Your task to perform on an android device: toggle notification dots Image 0: 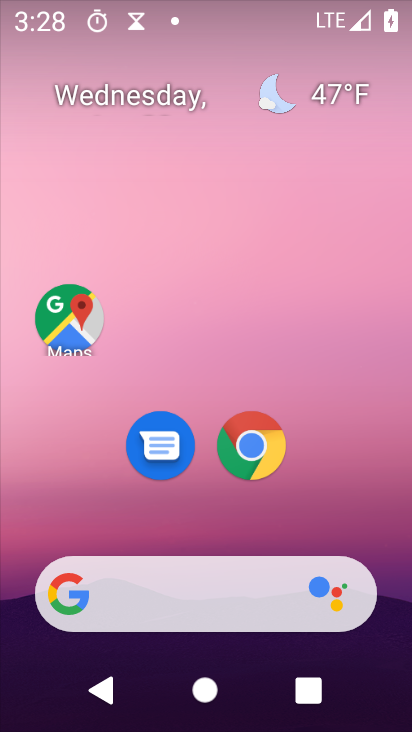
Step 0: drag from (380, 543) to (384, 13)
Your task to perform on an android device: toggle notification dots Image 1: 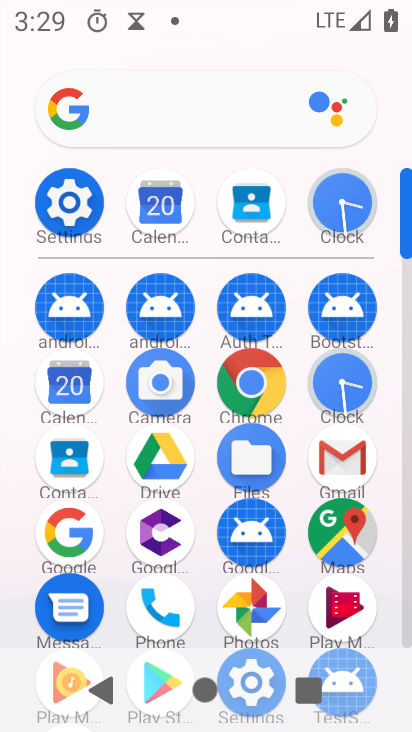
Step 1: click (68, 212)
Your task to perform on an android device: toggle notification dots Image 2: 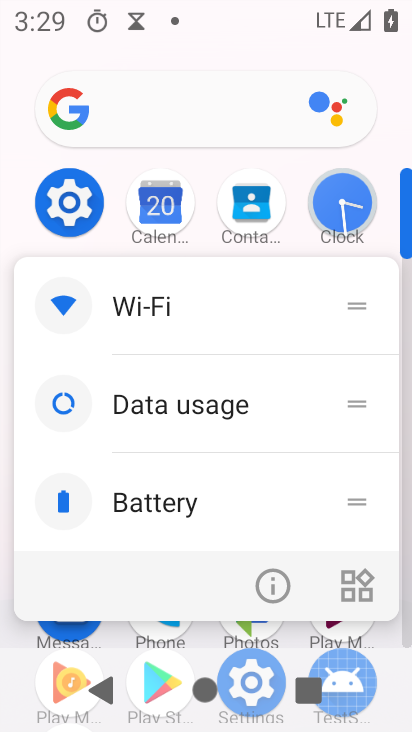
Step 2: click (70, 201)
Your task to perform on an android device: toggle notification dots Image 3: 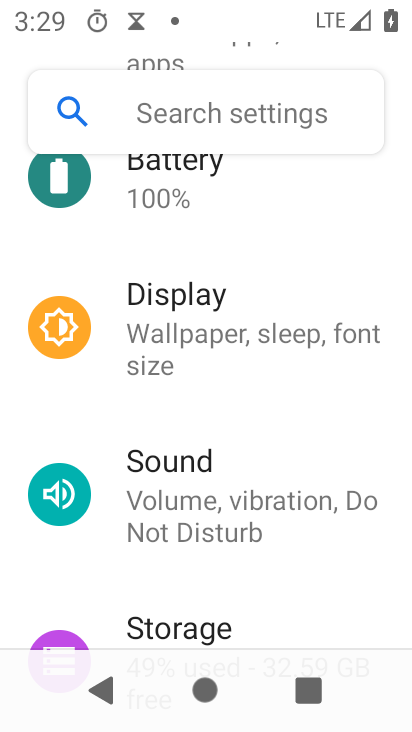
Step 3: drag from (294, 244) to (276, 522)
Your task to perform on an android device: toggle notification dots Image 4: 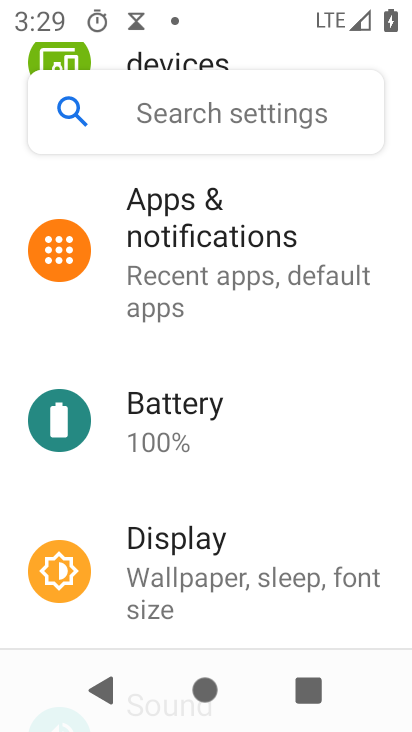
Step 4: click (243, 258)
Your task to perform on an android device: toggle notification dots Image 5: 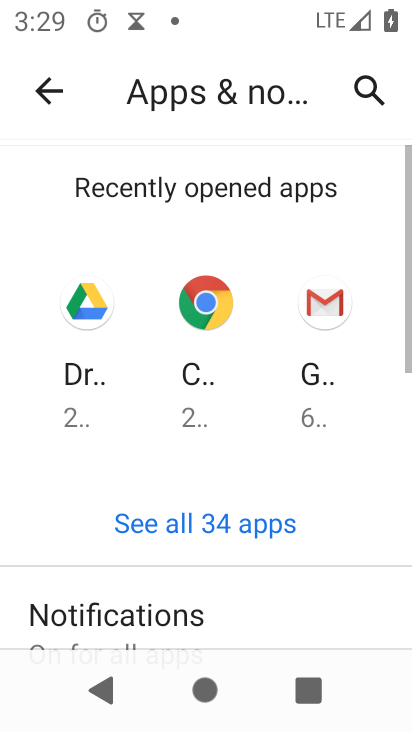
Step 5: drag from (336, 550) to (322, 165)
Your task to perform on an android device: toggle notification dots Image 6: 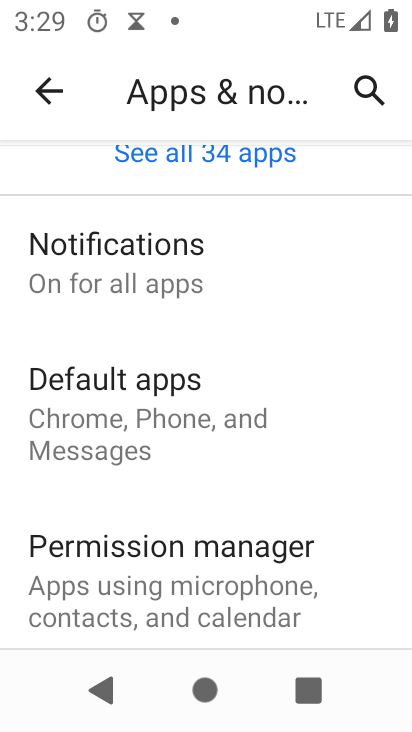
Step 6: click (136, 287)
Your task to perform on an android device: toggle notification dots Image 7: 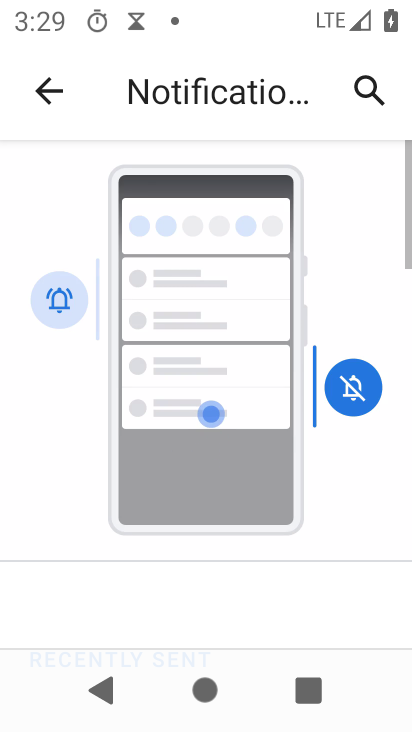
Step 7: drag from (283, 538) to (256, 99)
Your task to perform on an android device: toggle notification dots Image 8: 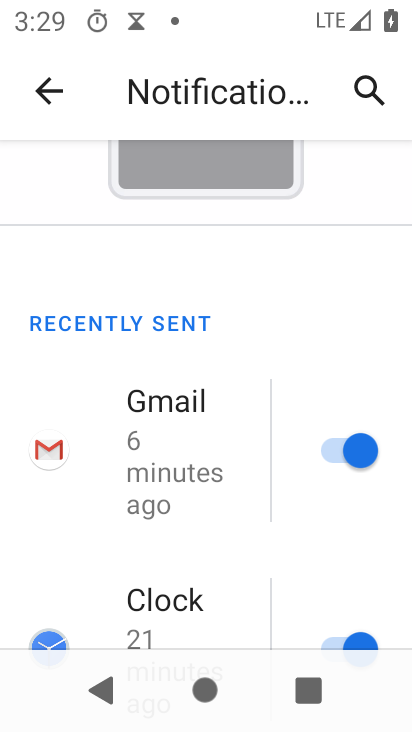
Step 8: drag from (191, 518) to (180, 145)
Your task to perform on an android device: toggle notification dots Image 9: 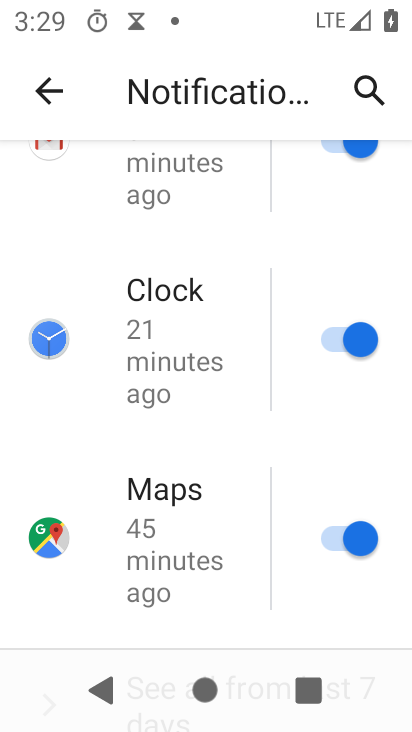
Step 9: drag from (176, 500) to (163, 138)
Your task to perform on an android device: toggle notification dots Image 10: 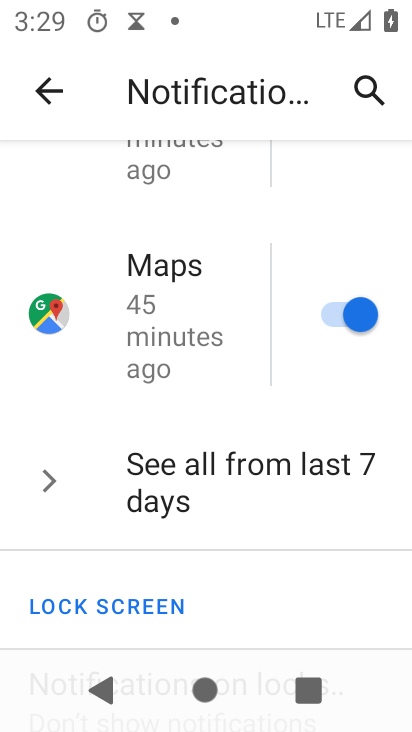
Step 10: drag from (153, 517) to (165, 195)
Your task to perform on an android device: toggle notification dots Image 11: 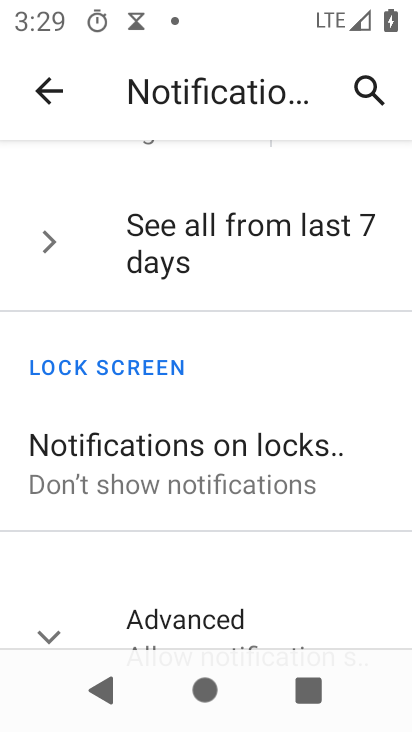
Step 11: drag from (168, 545) to (173, 298)
Your task to perform on an android device: toggle notification dots Image 12: 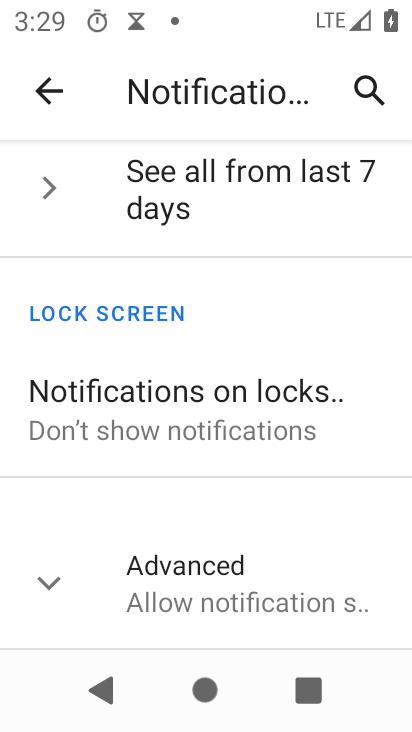
Step 12: click (53, 593)
Your task to perform on an android device: toggle notification dots Image 13: 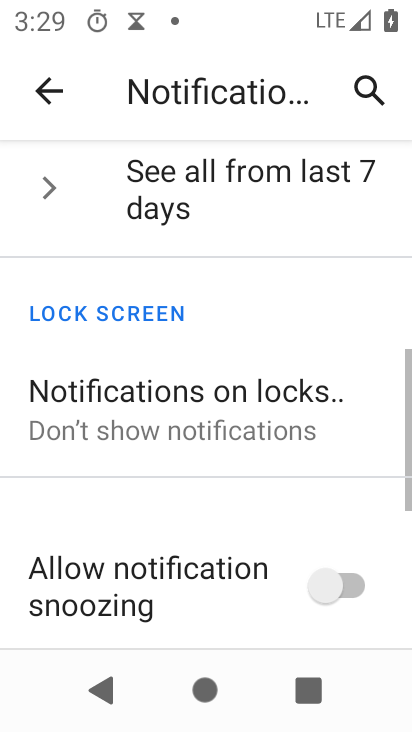
Step 13: drag from (186, 600) to (165, 150)
Your task to perform on an android device: toggle notification dots Image 14: 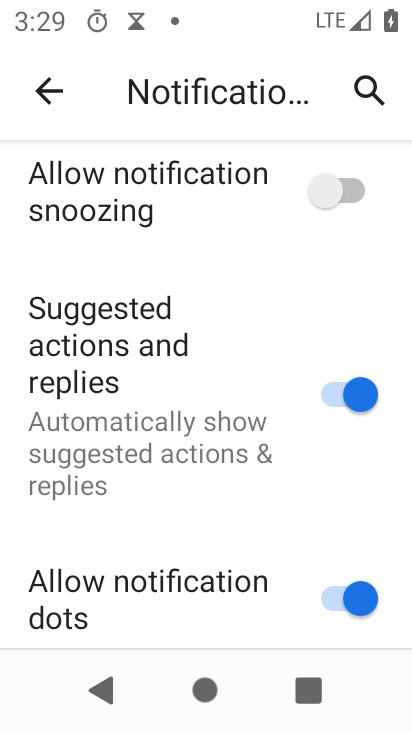
Step 14: drag from (127, 492) to (132, 245)
Your task to perform on an android device: toggle notification dots Image 15: 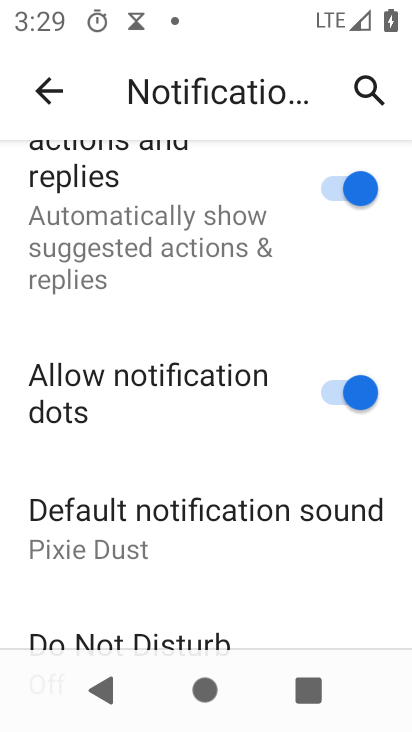
Step 15: click (337, 396)
Your task to perform on an android device: toggle notification dots Image 16: 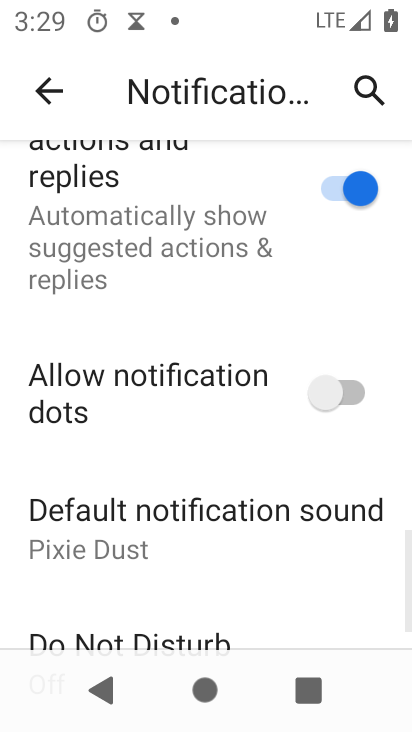
Step 16: task complete